Your task to perform on an android device: Open my contact list Image 0: 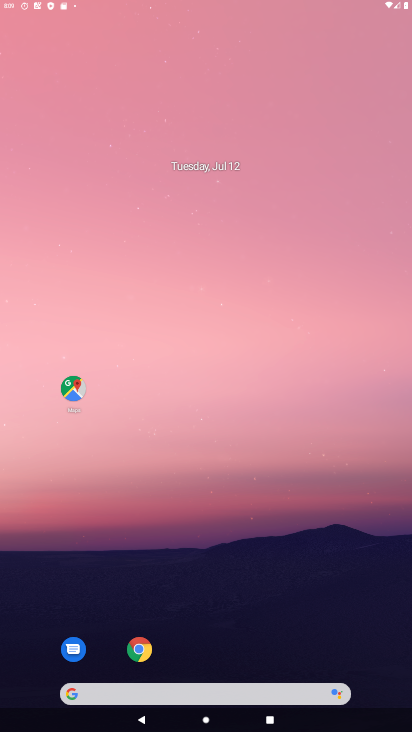
Step 0: drag from (290, 268) to (311, 163)
Your task to perform on an android device: Open my contact list Image 1: 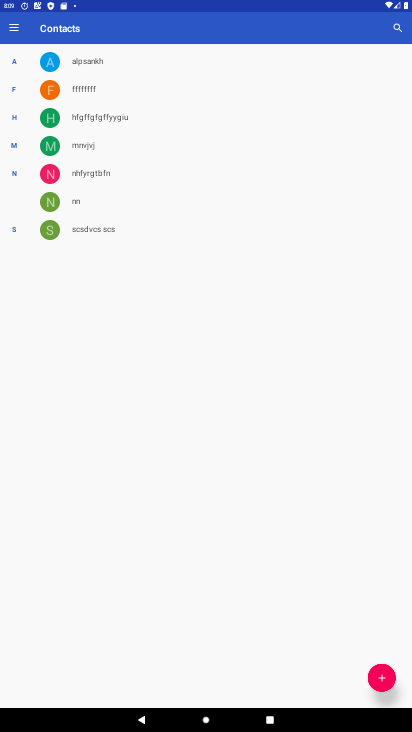
Step 1: task complete